Your task to perform on an android device: turn off translation in the chrome app Image 0: 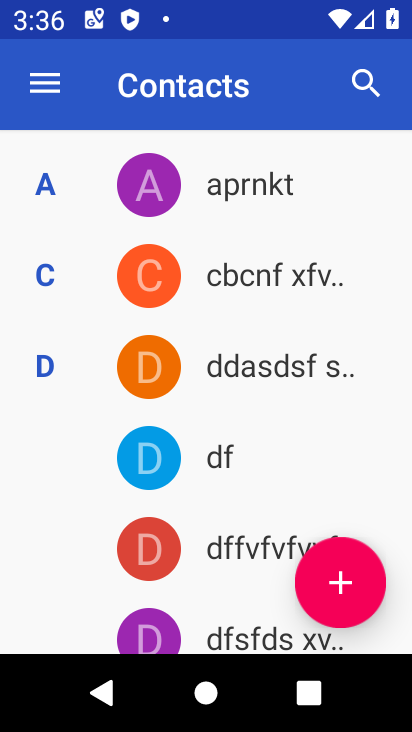
Step 0: press home button
Your task to perform on an android device: turn off translation in the chrome app Image 1: 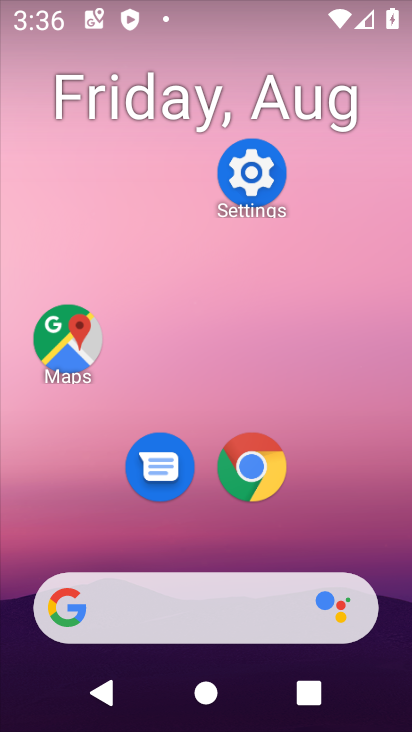
Step 1: drag from (259, 516) to (200, 16)
Your task to perform on an android device: turn off translation in the chrome app Image 2: 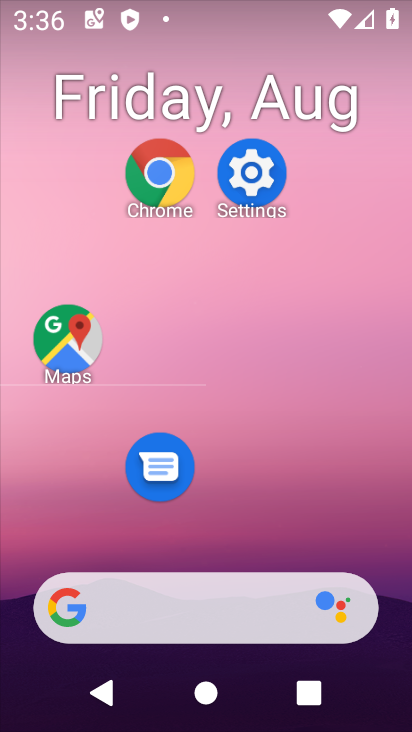
Step 2: click (310, 496)
Your task to perform on an android device: turn off translation in the chrome app Image 3: 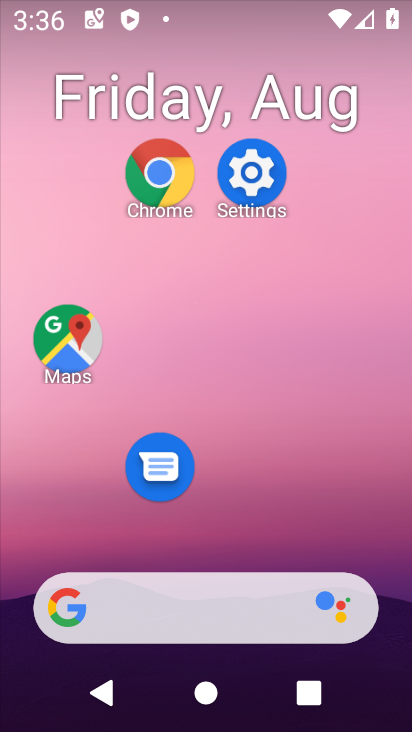
Step 3: drag from (310, 496) to (245, 32)
Your task to perform on an android device: turn off translation in the chrome app Image 4: 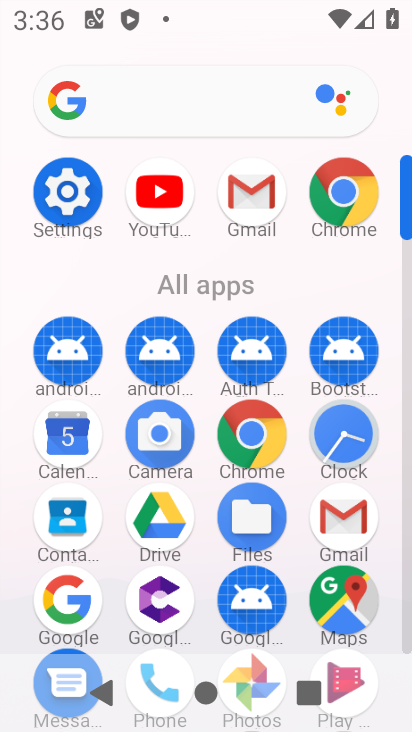
Step 4: click (243, 437)
Your task to perform on an android device: turn off translation in the chrome app Image 5: 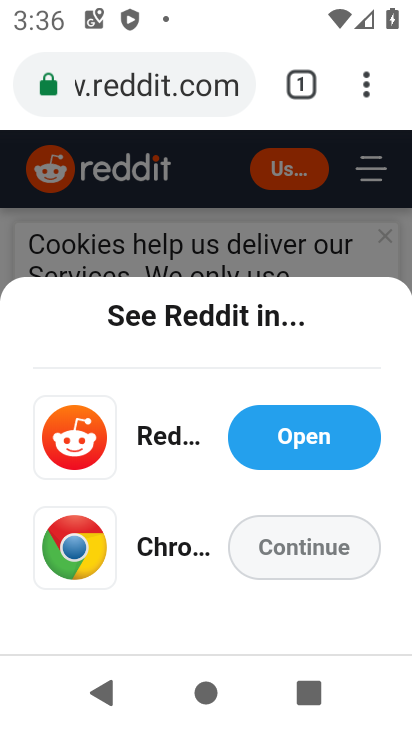
Step 5: drag from (363, 86) to (128, 545)
Your task to perform on an android device: turn off translation in the chrome app Image 6: 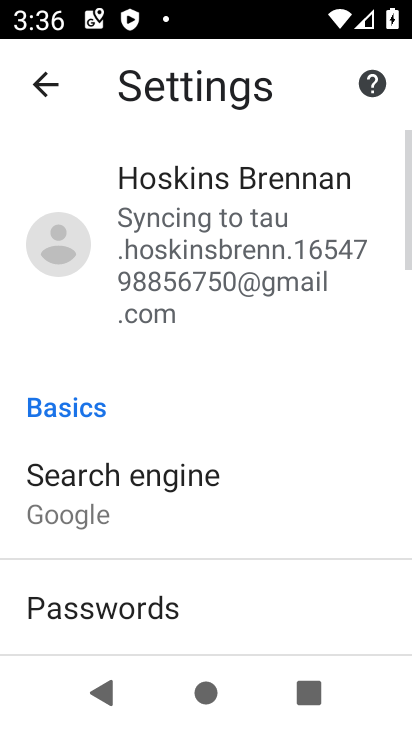
Step 6: drag from (283, 594) to (246, 106)
Your task to perform on an android device: turn off translation in the chrome app Image 7: 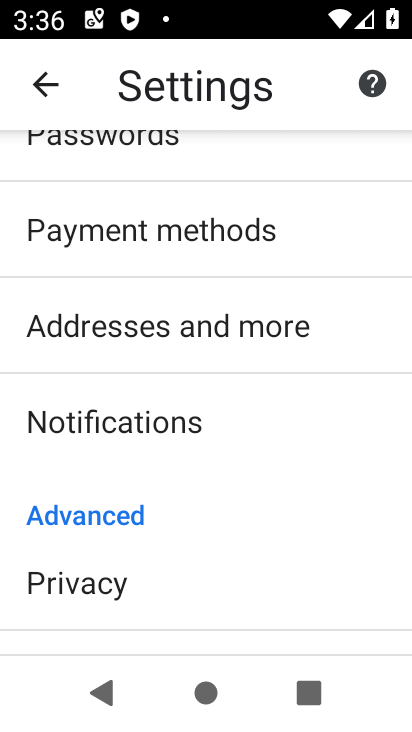
Step 7: drag from (200, 575) to (185, 185)
Your task to perform on an android device: turn off translation in the chrome app Image 8: 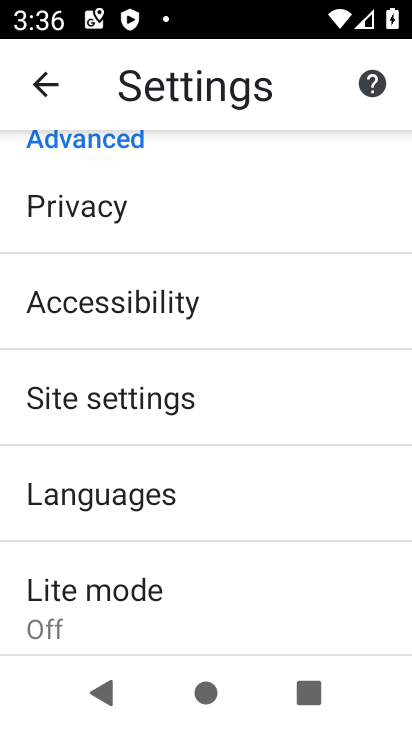
Step 8: click (117, 495)
Your task to perform on an android device: turn off translation in the chrome app Image 9: 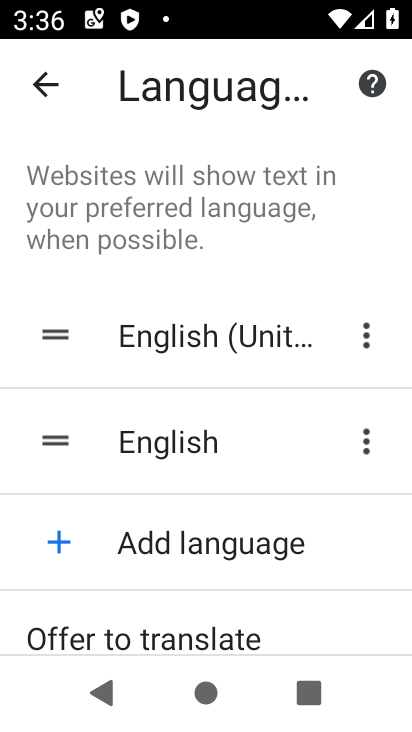
Step 9: drag from (330, 597) to (263, 215)
Your task to perform on an android device: turn off translation in the chrome app Image 10: 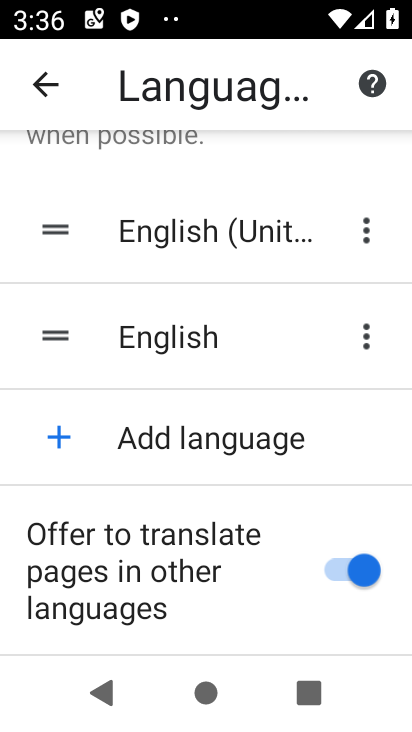
Step 10: click (340, 556)
Your task to perform on an android device: turn off translation in the chrome app Image 11: 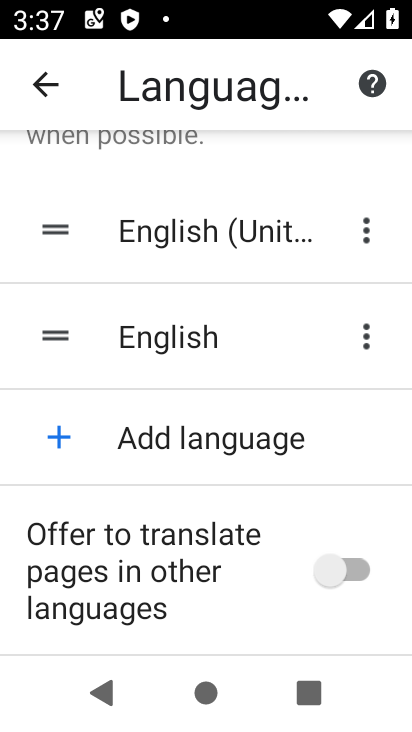
Step 11: task complete